Your task to perform on an android device: turn on data saver in the chrome app Image 0: 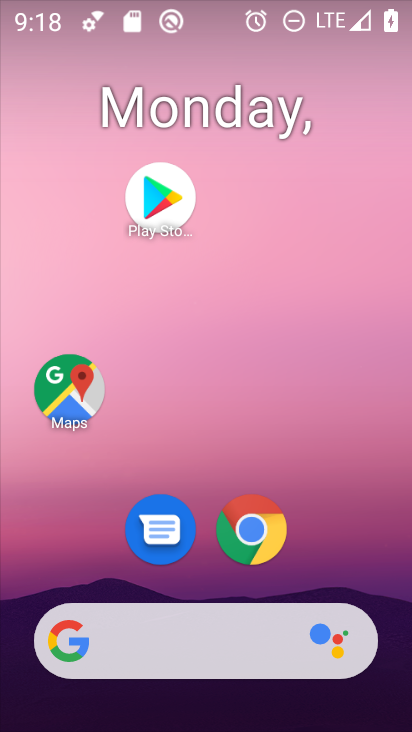
Step 0: click (240, 528)
Your task to perform on an android device: turn on data saver in the chrome app Image 1: 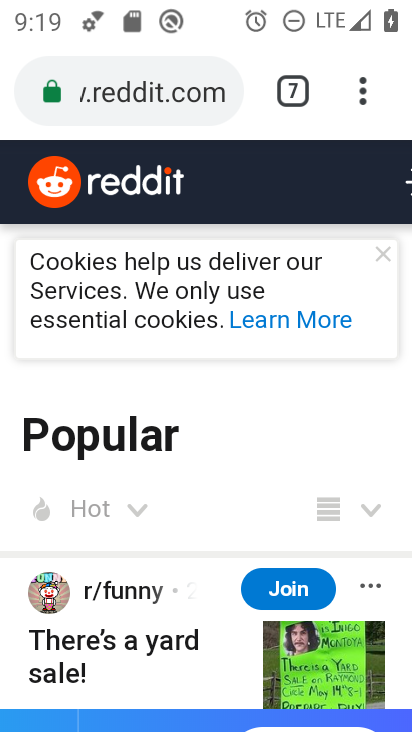
Step 1: click (361, 88)
Your task to perform on an android device: turn on data saver in the chrome app Image 2: 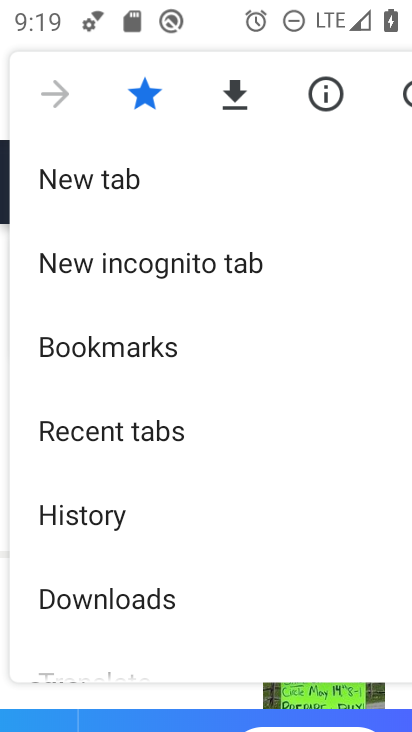
Step 2: drag from (286, 495) to (269, 149)
Your task to perform on an android device: turn on data saver in the chrome app Image 3: 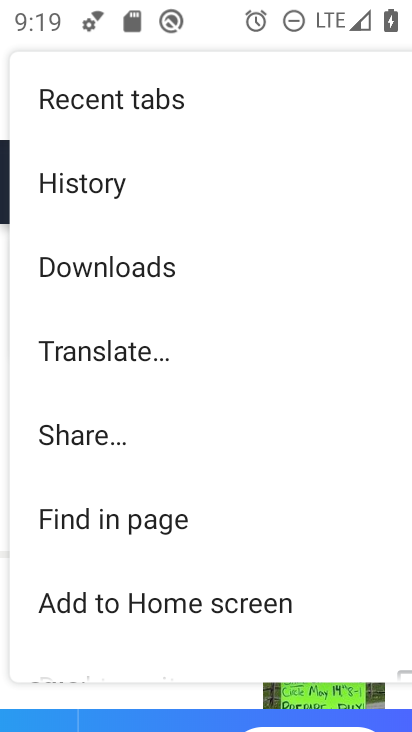
Step 3: drag from (277, 533) to (255, 310)
Your task to perform on an android device: turn on data saver in the chrome app Image 4: 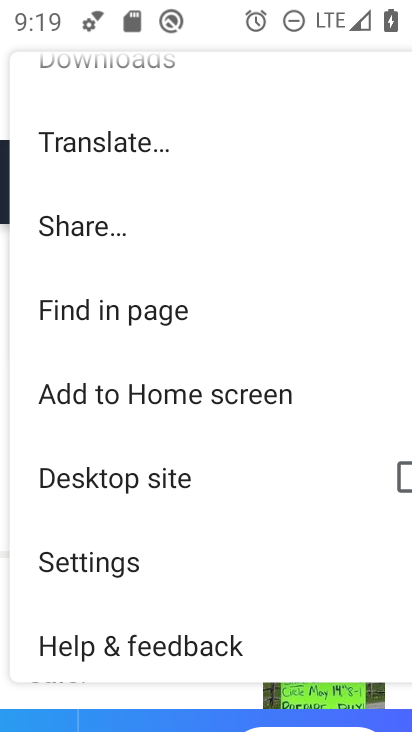
Step 4: click (108, 565)
Your task to perform on an android device: turn on data saver in the chrome app Image 5: 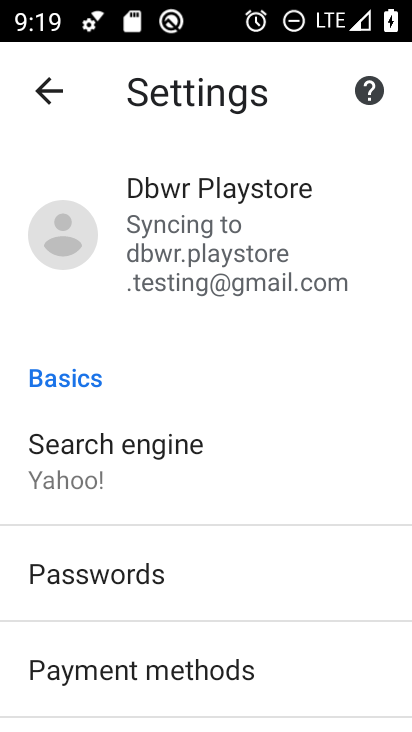
Step 5: drag from (238, 511) to (209, 284)
Your task to perform on an android device: turn on data saver in the chrome app Image 6: 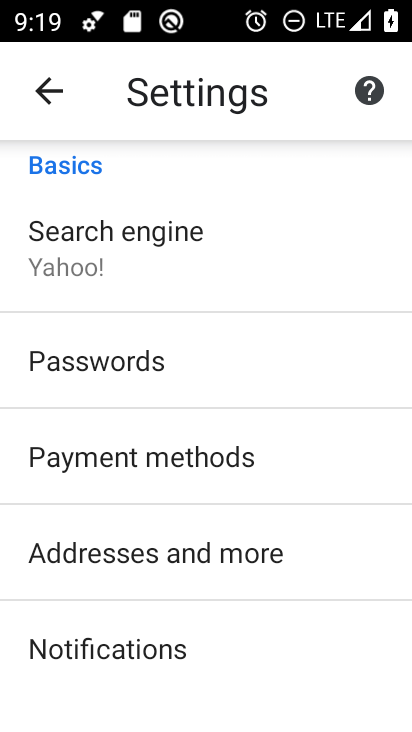
Step 6: drag from (258, 596) to (275, 279)
Your task to perform on an android device: turn on data saver in the chrome app Image 7: 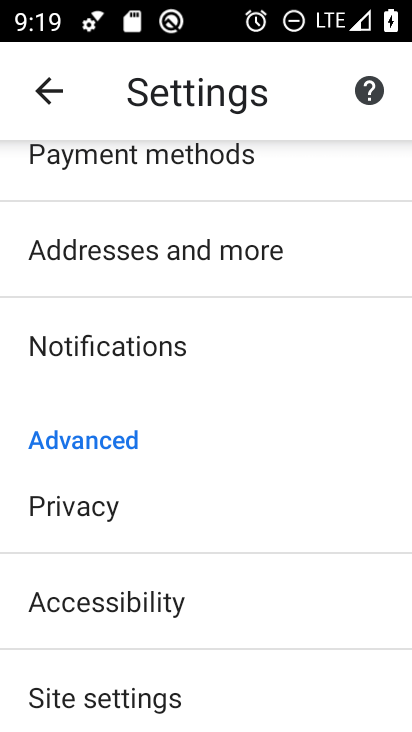
Step 7: drag from (227, 501) to (167, 261)
Your task to perform on an android device: turn on data saver in the chrome app Image 8: 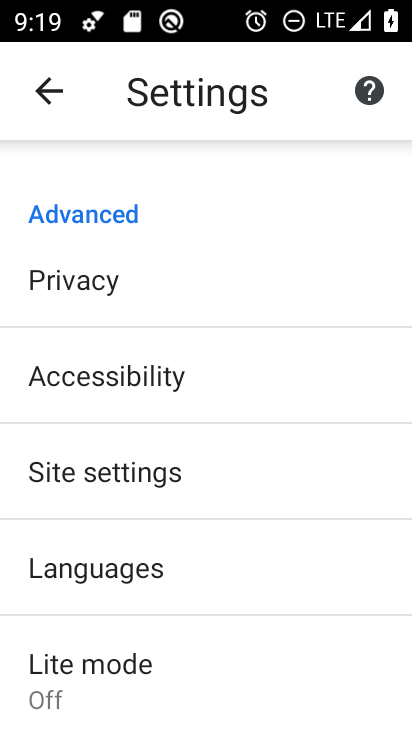
Step 8: click (107, 664)
Your task to perform on an android device: turn on data saver in the chrome app Image 9: 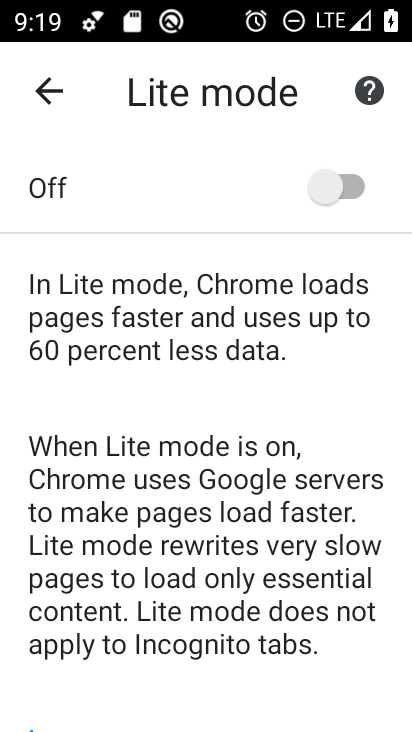
Step 9: click (330, 195)
Your task to perform on an android device: turn on data saver in the chrome app Image 10: 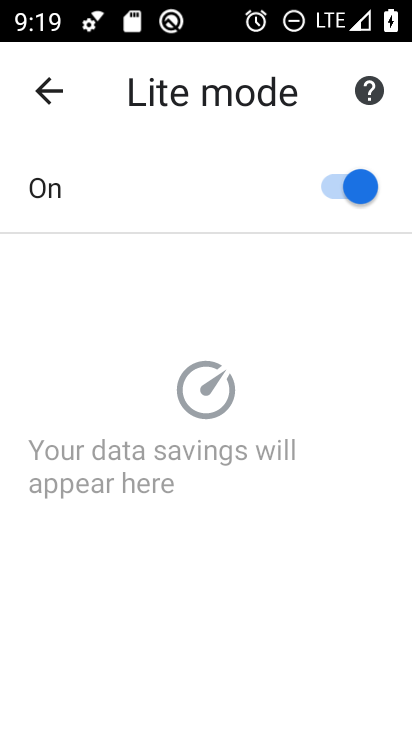
Step 10: task complete